Your task to perform on an android device: check data usage Image 0: 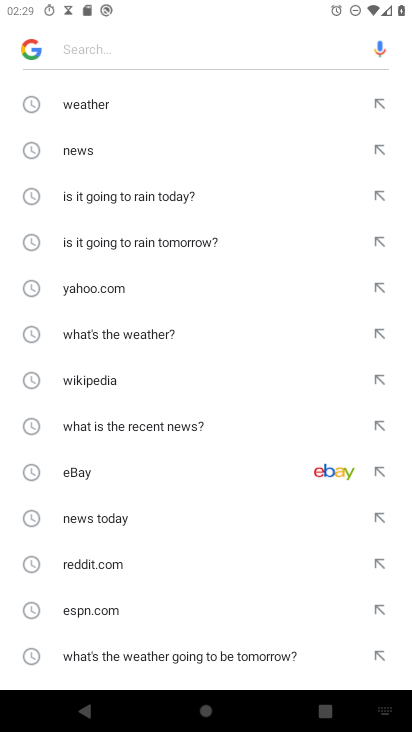
Step 0: press home button
Your task to perform on an android device: check data usage Image 1: 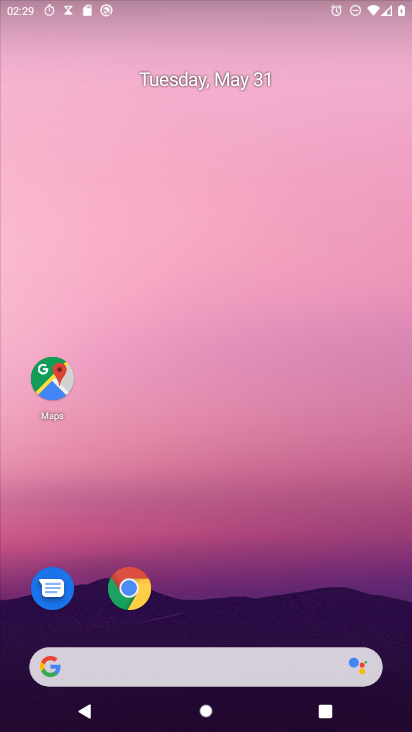
Step 1: drag from (267, 680) to (170, 0)
Your task to perform on an android device: check data usage Image 2: 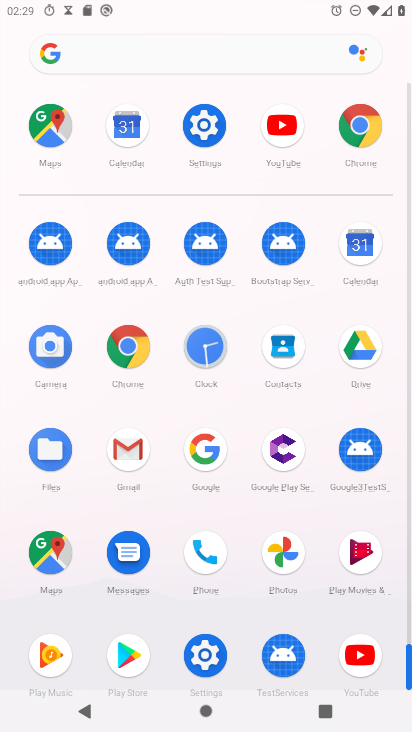
Step 2: click (220, 122)
Your task to perform on an android device: check data usage Image 3: 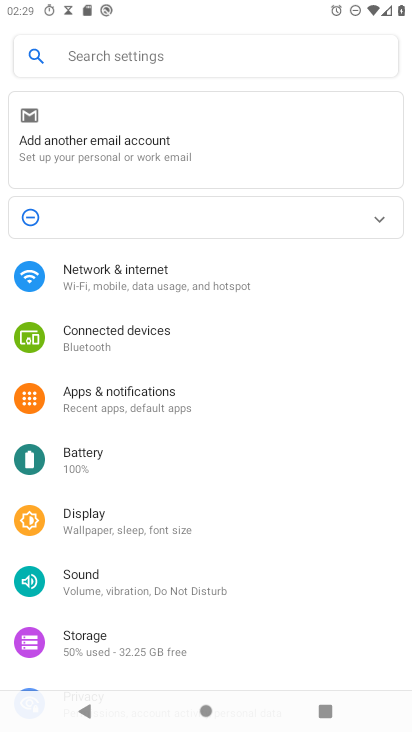
Step 3: click (168, 280)
Your task to perform on an android device: check data usage Image 4: 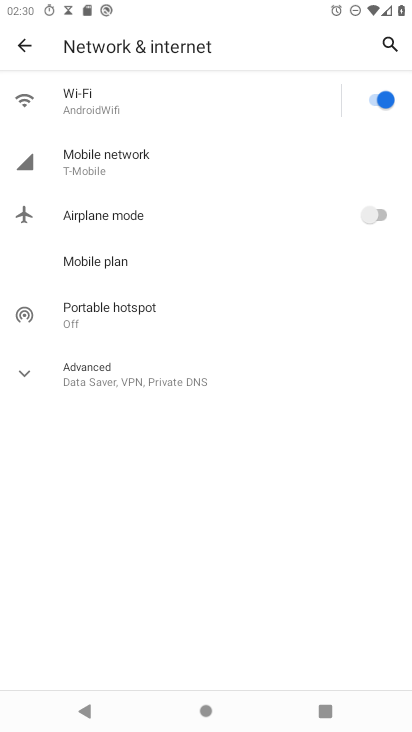
Step 4: click (127, 146)
Your task to perform on an android device: check data usage Image 5: 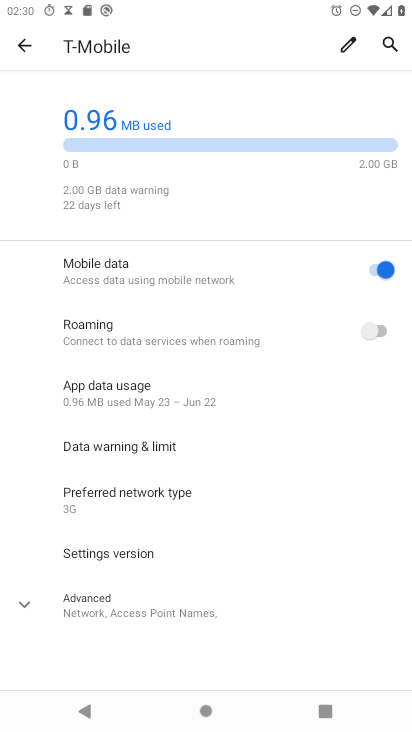
Step 5: click (153, 392)
Your task to perform on an android device: check data usage Image 6: 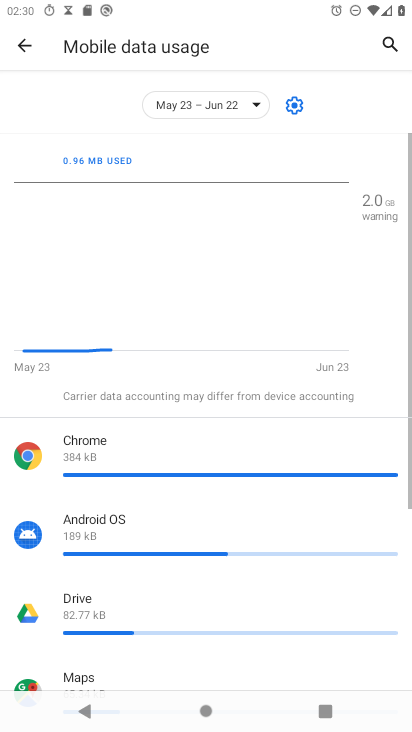
Step 6: task complete